Your task to perform on an android device: change timer sound Image 0: 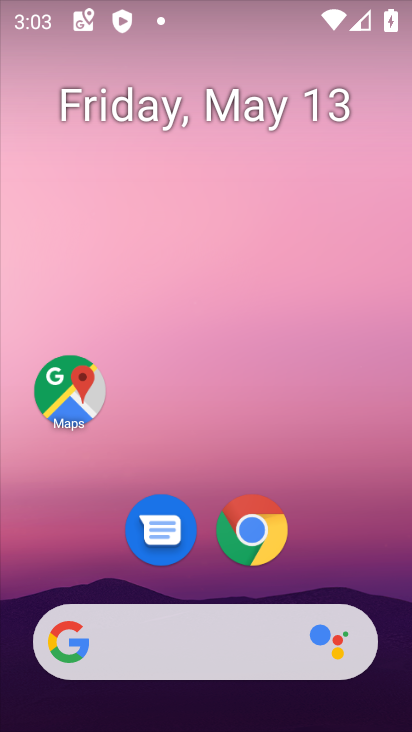
Step 0: drag from (347, 533) to (292, 59)
Your task to perform on an android device: change timer sound Image 1: 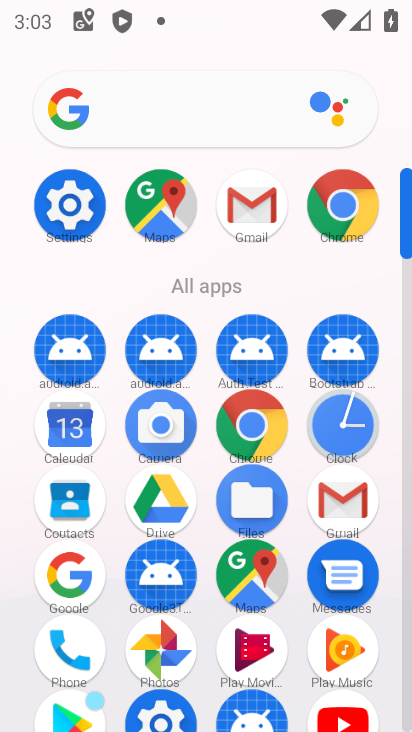
Step 1: click (338, 418)
Your task to perform on an android device: change timer sound Image 2: 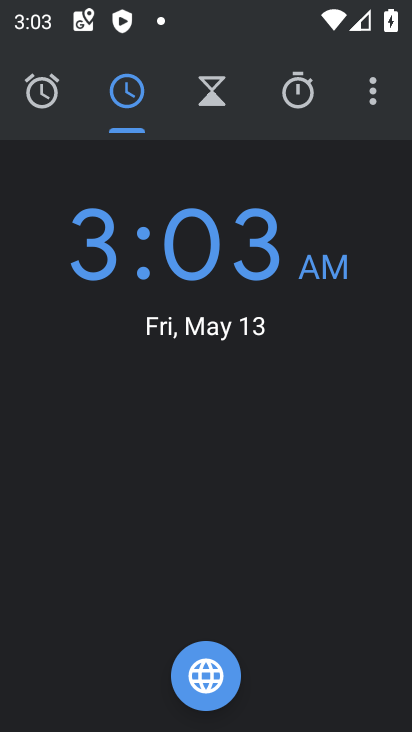
Step 2: click (369, 78)
Your task to perform on an android device: change timer sound Image 3: 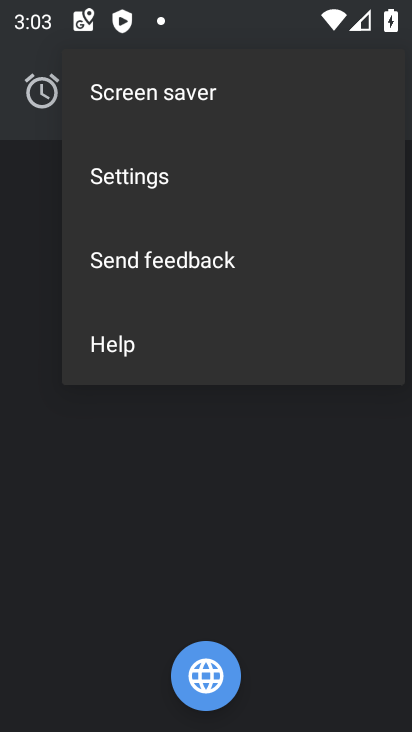
Step 3: click (152, 187)
Your task to perform on an android device: change timer sound Image 4: 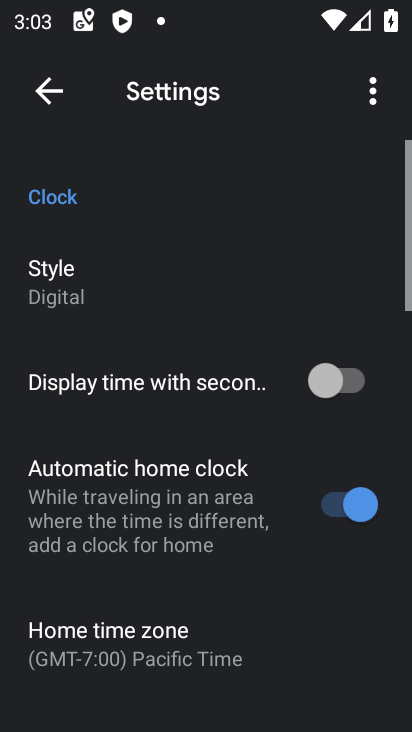
Step 4: drag from (209, 584) to (225, 204)
Your task to perform on an android device: change timer sound Image 5: 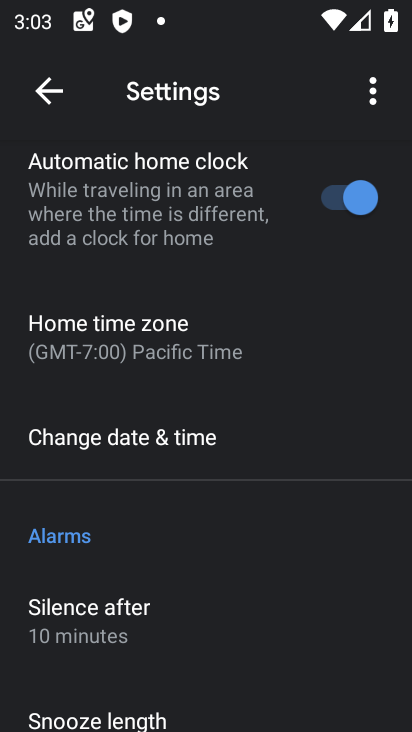
Step 5: drag from (205, 524) to (250, 192)
Your task to perform on an android device: change timer sound Image 6: 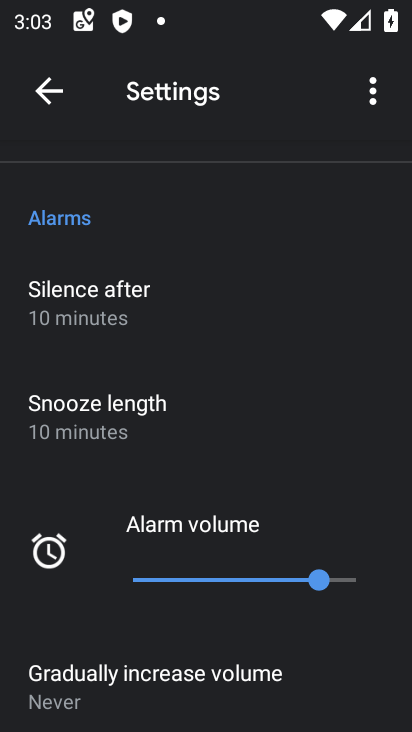
Step 6: drag from (207, 429) to (258, 115)
Your task to perform on an android device: change timer sound Image 7: 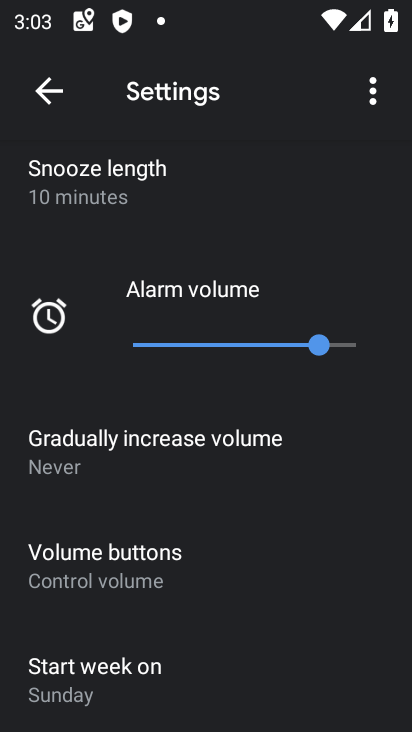
Step 7: drag from (219, 483) to (272, 175)
Your task to perform on an android device: change timer sound Image 8: 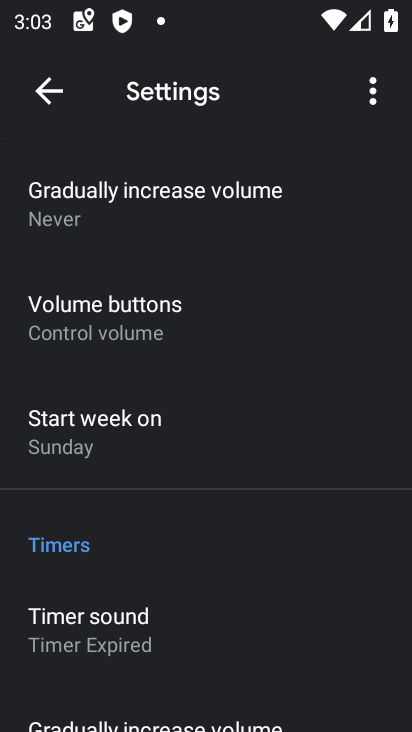
Step 8: click (131, 615)
Your task to perform on an android device: change timer sound Image 9: 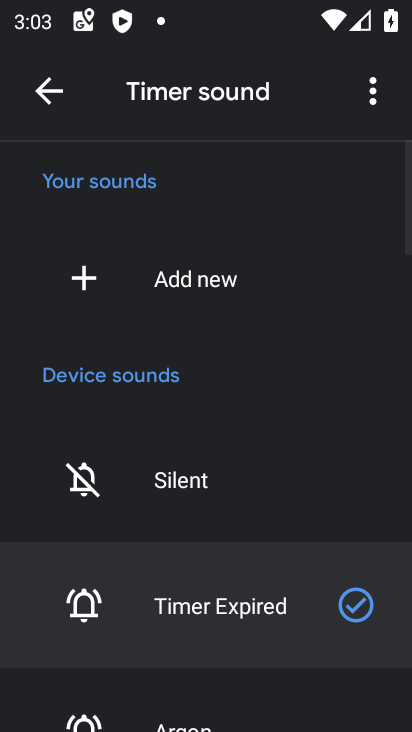
Step 9: click (205, 704)
Your task to perform on an android device: change timer sound Image 10: 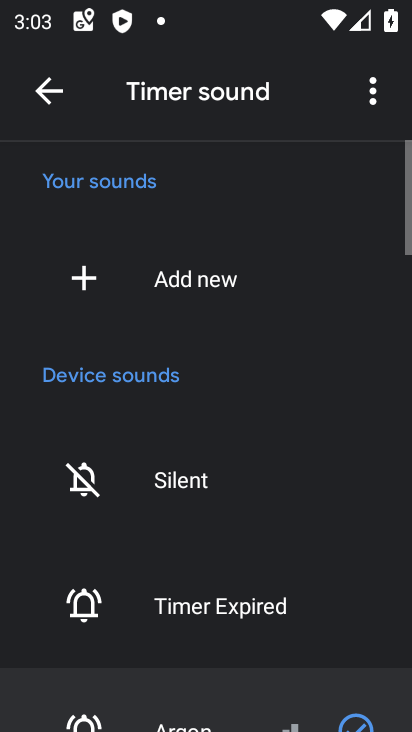
Step 10: task complete